Your task to perform on an android device: Open Youtube and go to "Your channel" Image 0: 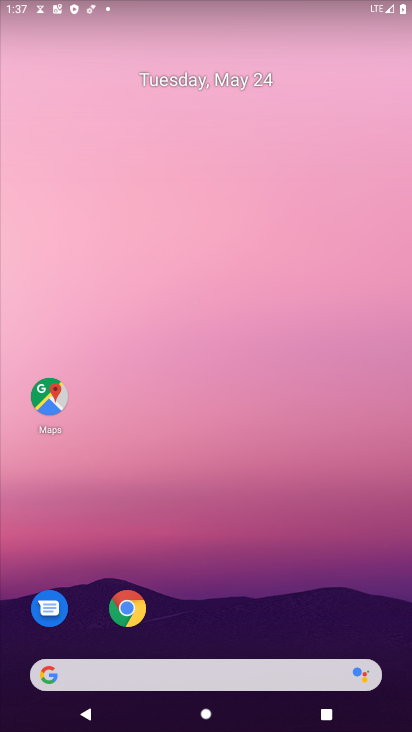
Step 0: drag from (377, 616) to (259, 90)
Your task to perform on an android device: Open Youtube and go to "Your channel" Image 1: 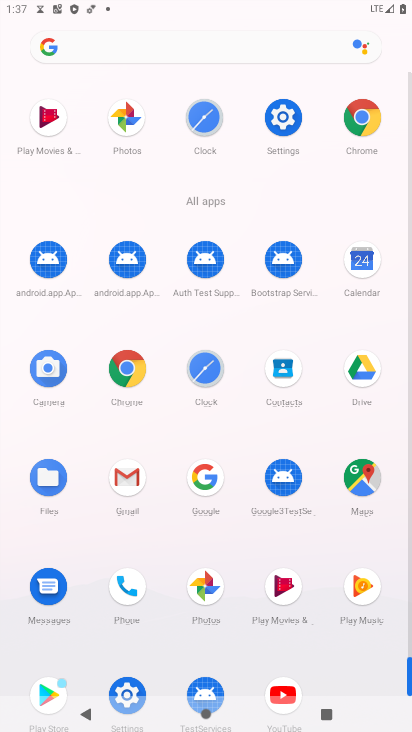
Step 1: click (286, 685)
Your task to perform on an android device: Open Youtube and go to "Your channel" Image 2: 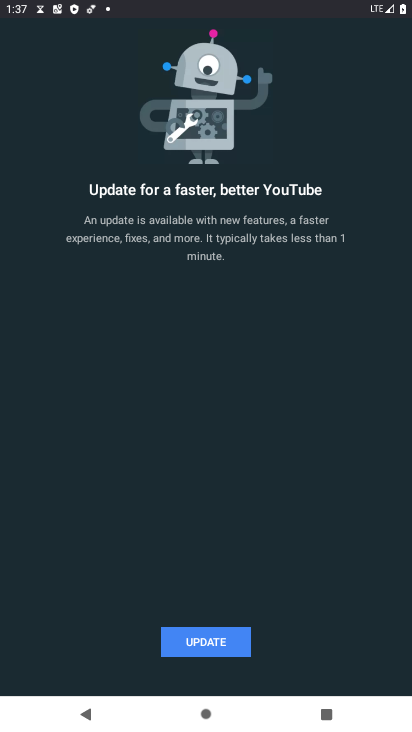
Step 2: click (157, 636)
Your task to perform on an android device: Open Youtube and go to "Your channel" Image 3: 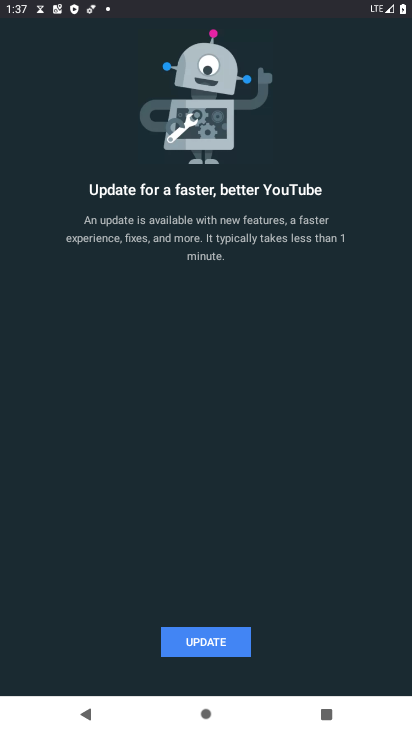
Step 3: click (194, 642)
Your task to perform on an android device: Open Youtube and go to "Your channel" Image 4: 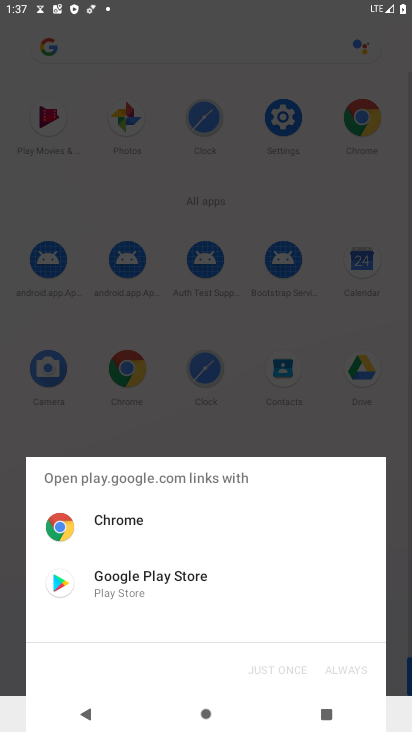
Step 4: click (189, 593)
Your task to perform on an android device: Open Youtube and go to "Your channel" Image 5: 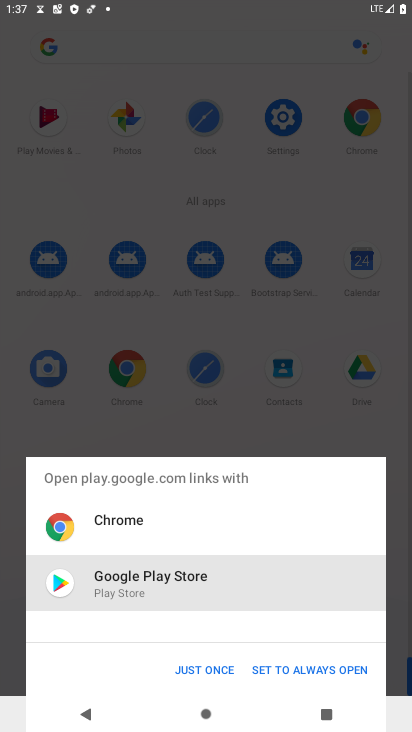
Step 5: click (197, 668)
Your task to perform on an android device: Open Youtube and go to "Your channel" Image 6: 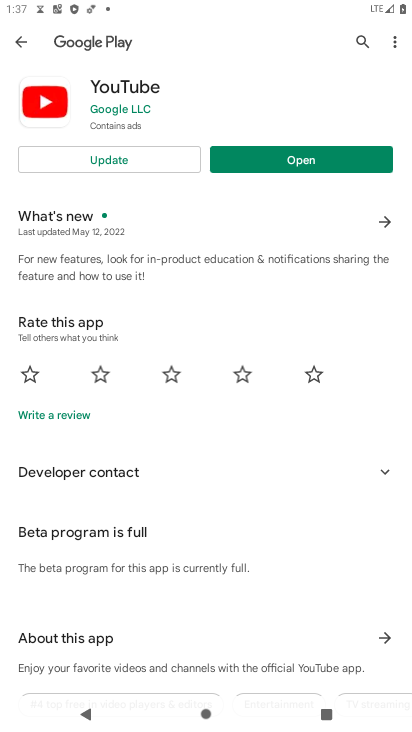
Step 6: click (169, 156)
Your task to perform on an android device: Open Youtube and go to "Your channel" Image 7: 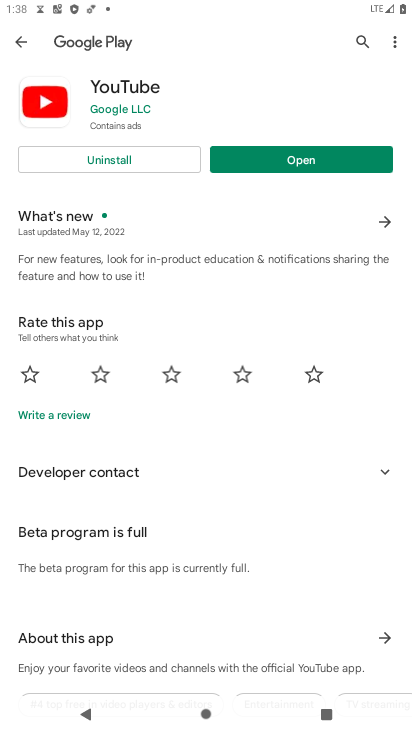
Step 7: click (280, 162)
Your task to perform on an android device: Open Youtube and go to "Your channel" Image 8: 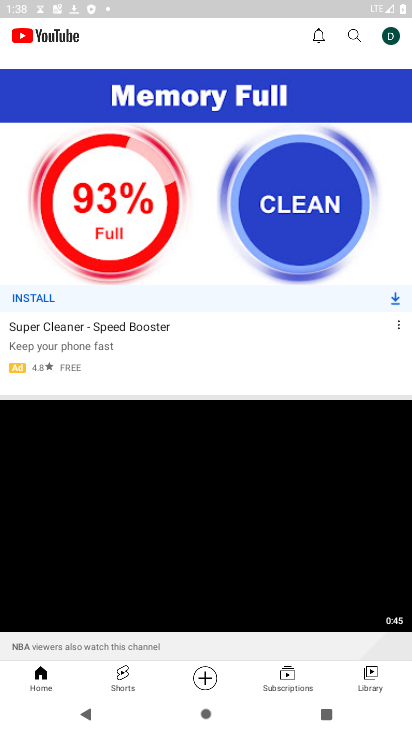
Step 8: click (396, 36)
Your task to perform on an android device: Open Youtube and go to "Your channel" Image 9: 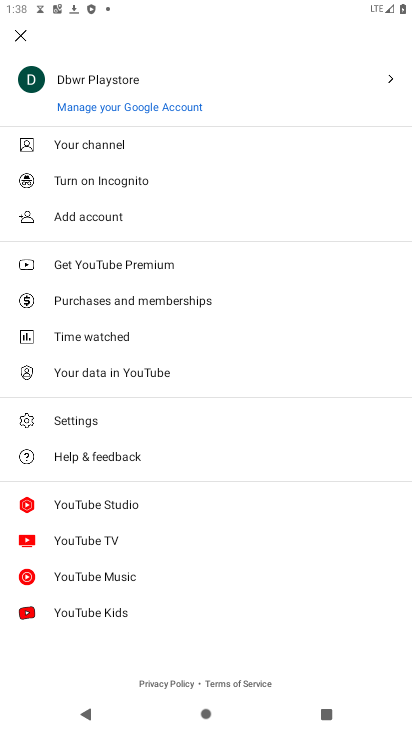
Step 9: click (111, 150)
Your task to perform on an android device: Open Youtube and go to "Your channel" Image 10: 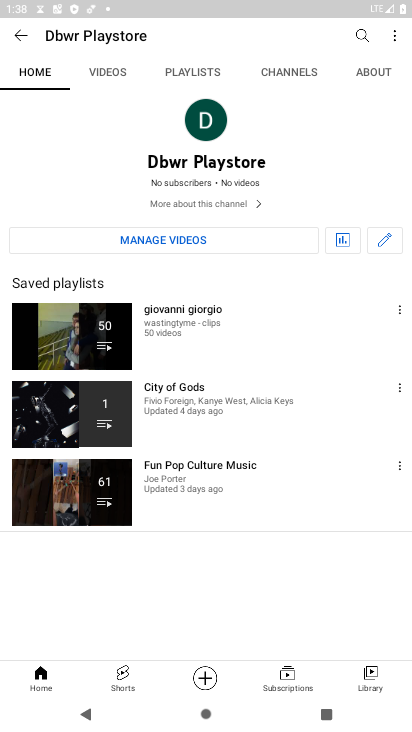
Step 10: task complete